Your task to perform on an android device: Open the stopwatch Image 0: 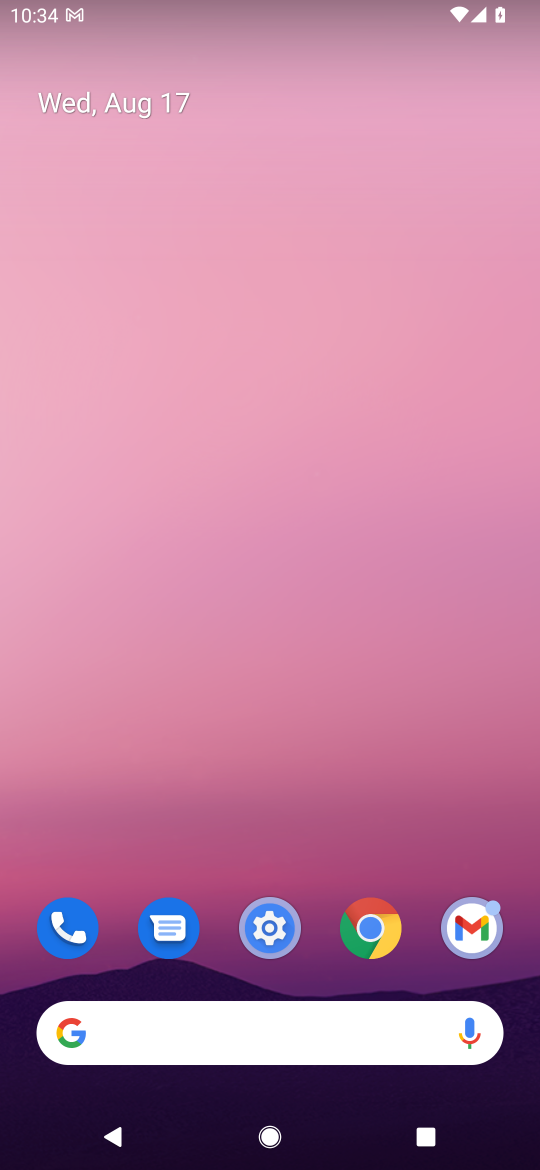
Step 0: drag from (498, 838) to (407, 207)
Your task to perform on an android device: Open the stopwatch Image 1: 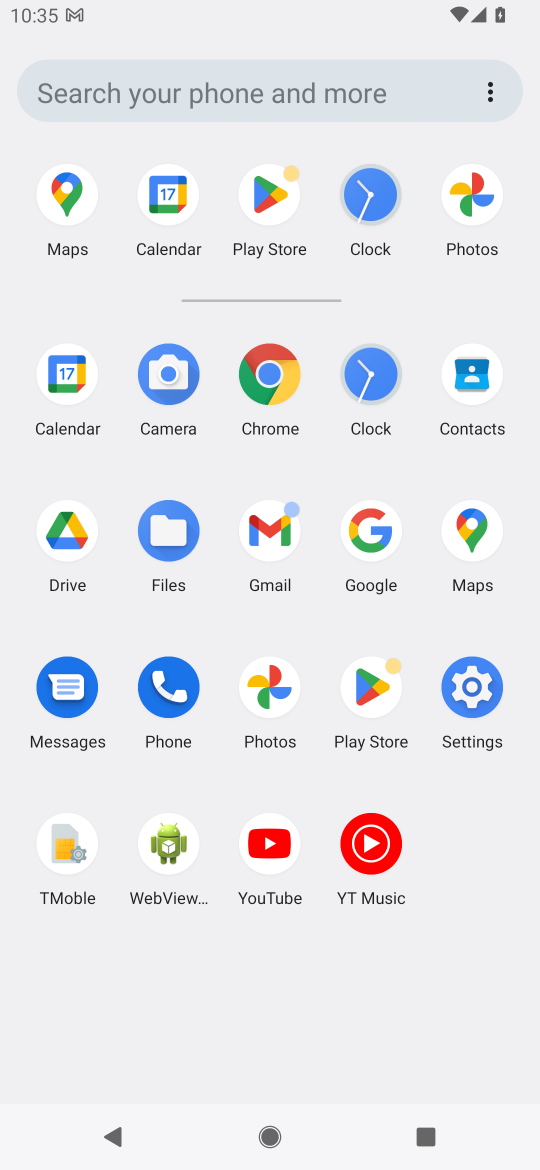
Step 1: click (383, 401)
Your task to perform on an android device: Open the stopwatch Image 2: 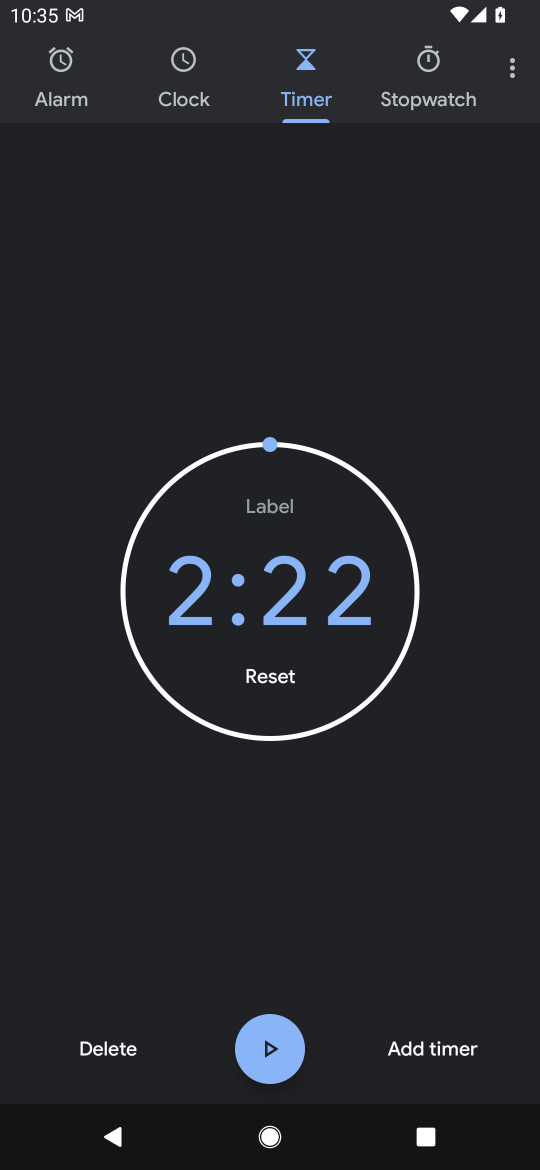
Step 2: click (441, 59)
Your task to perform on an android device: Open the stopwatch Image 3: 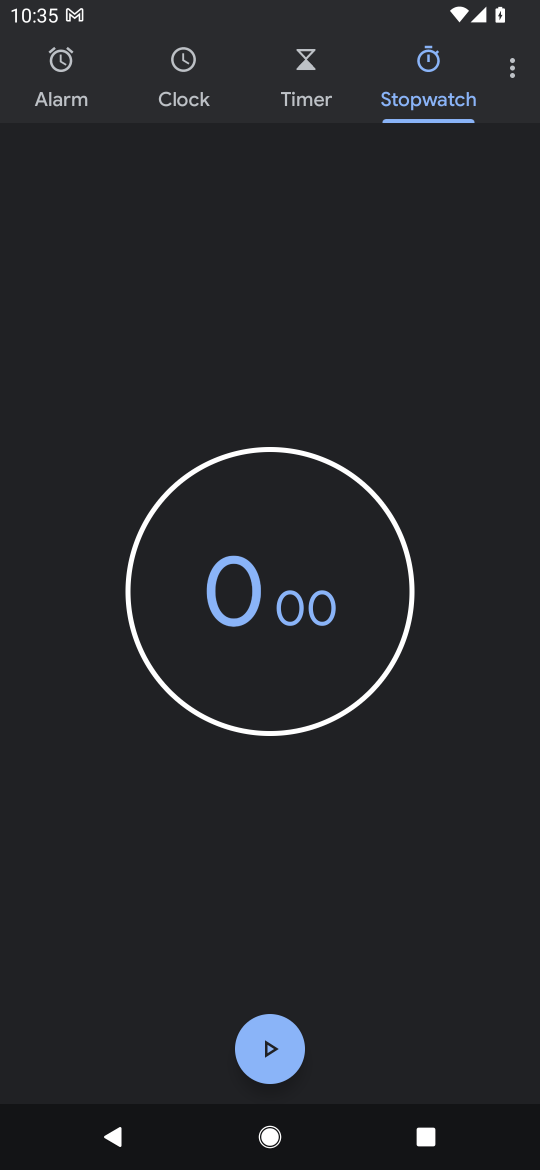
Step 3: task complete